Your task to perform on an android device: Open settings on Google Maps Image 0: 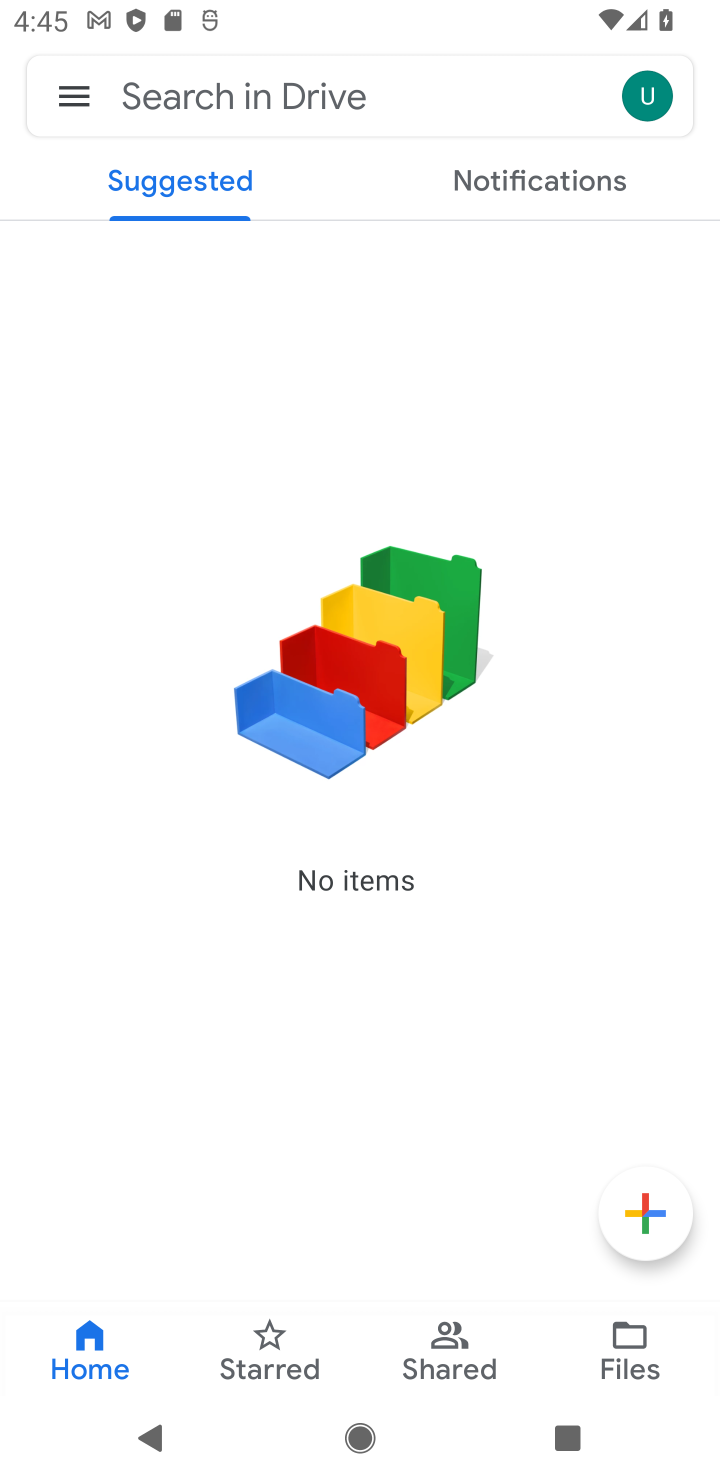
Step 0: press home button
Your task to perform on an android device: Open settings on Google Maps Image 1: 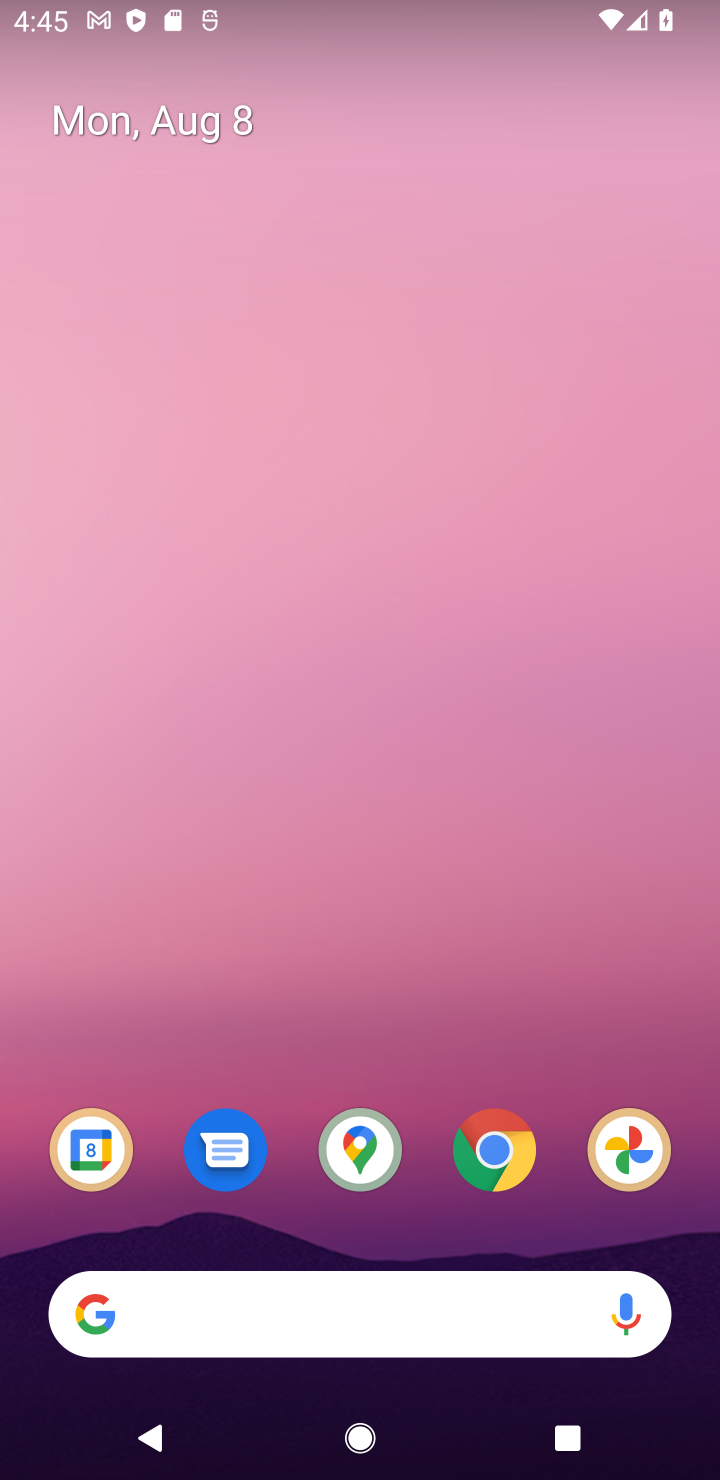
Step 1: click (329, 1131)
Your task to perform on an android device: Open settings on Google Maps Image 2: 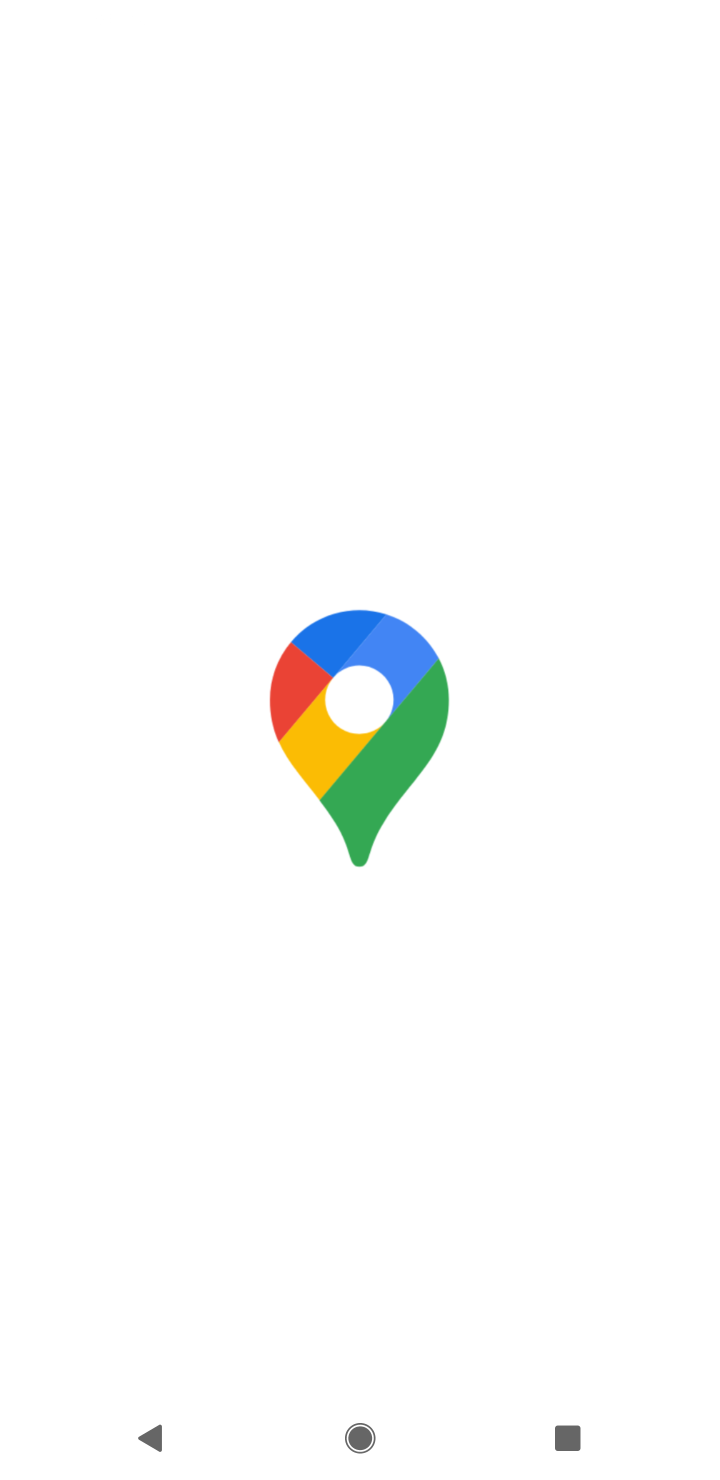
Step 2: task complete